Your task to perform on an android device: Go to eBay Image 0: 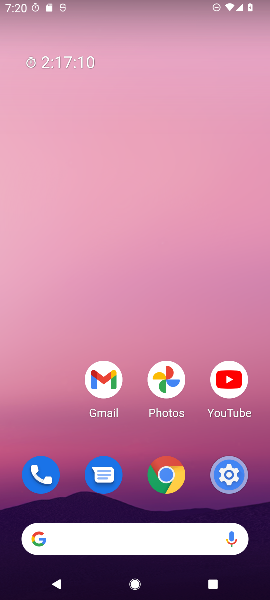
Step 0: press home button
Your task to perform on an android device: Go to eBay Image 1: 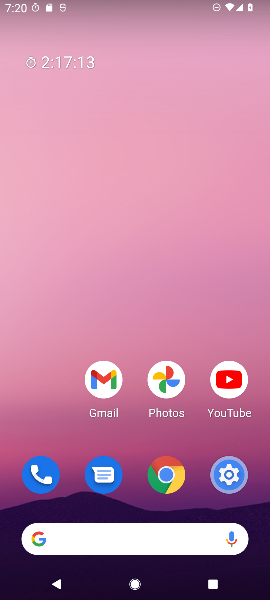
Step 1: drag from (65, 435) to (72, 234)
Your task to perform on an android device: Go to eBay Image 2: 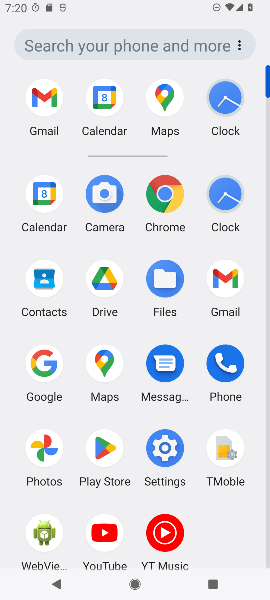
Step 2: click (170, 199)
Your task to perform on an android device: Go to eBay Image 3: 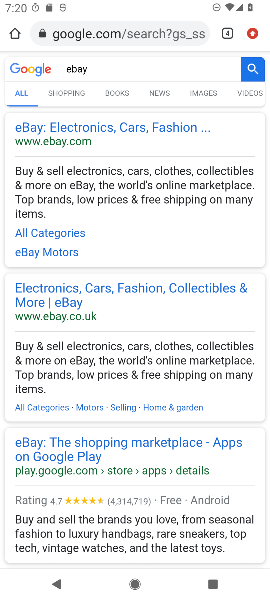
Step 3: task complete